Your task to perform on an android device: see tabs open on other devices in the chrome app Image 0: 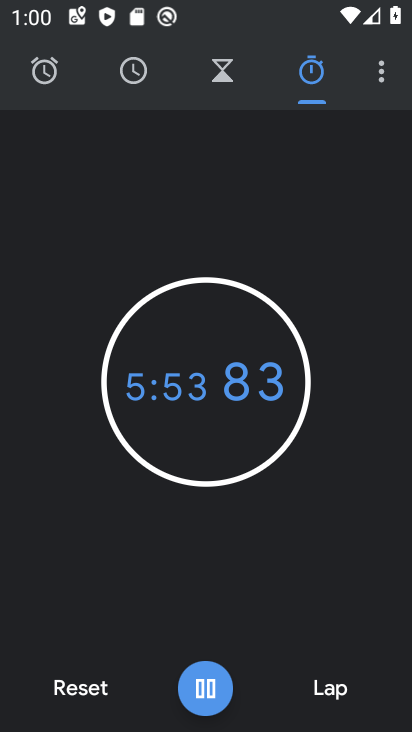
Step 0: click (103, 688)
Your task to perform on an android device: see tabs open on other devices in the chrome app Image 1: 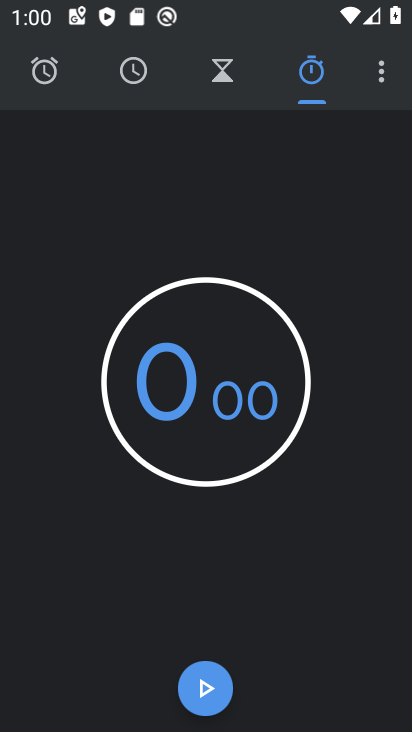
Step 1: press home button
Your task to perform on an android device: see tabs open on other devices in the chrome app Image 2: 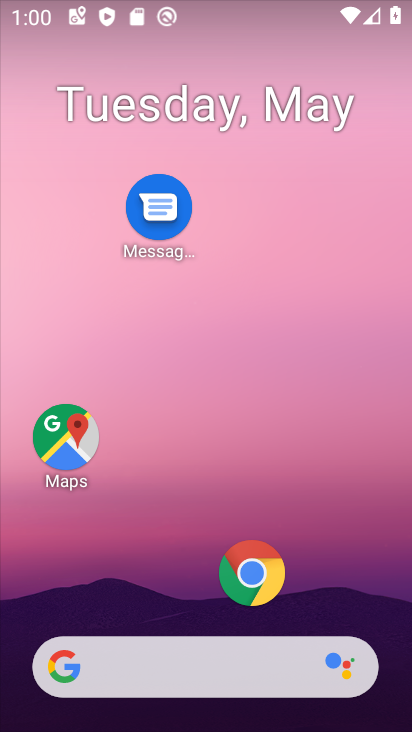
Step 2: click (259, 581)
Your task to perform on an android device: see tabs open on other devices in the chrome app Image 3: 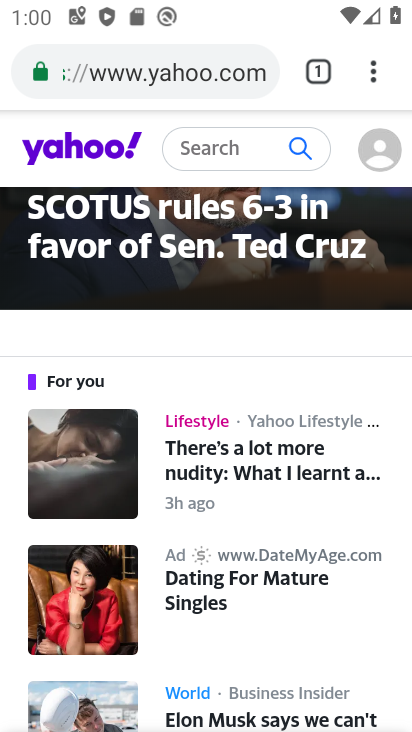
Step 3: click (367, 78)
Your task to perform on an android device: see tabs open on other devices in the chrome app Image 4: 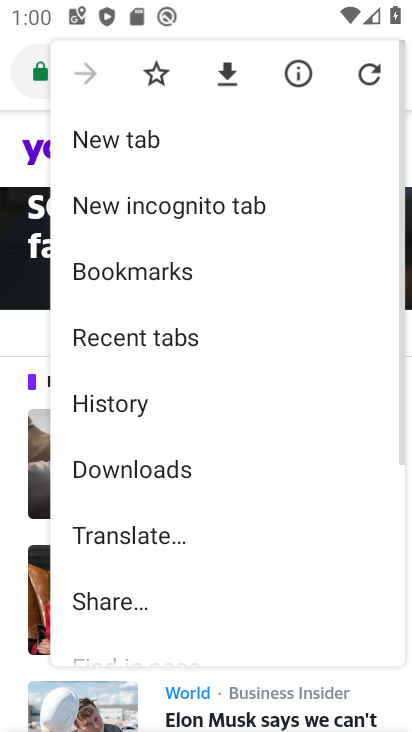
Step 4: drag from (127, 581) to (216, 257)
Your task to perform on an android device: see tabs open on other devices in the chrome app Image 5: 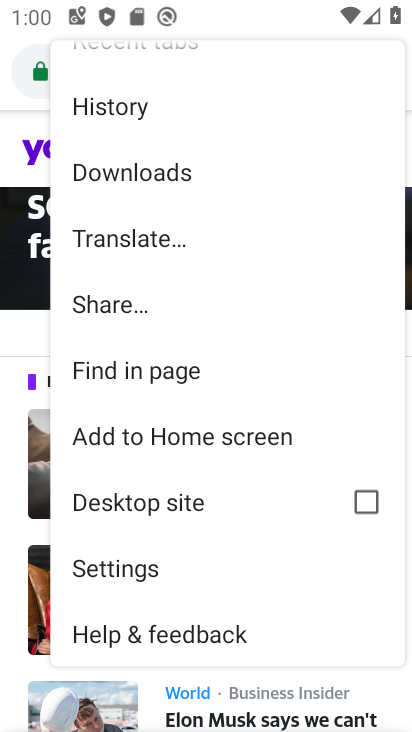
Step 5: click (134, 561)
Your task to perform on an android device: see tabs open on other devices in the chrome app Image 6: 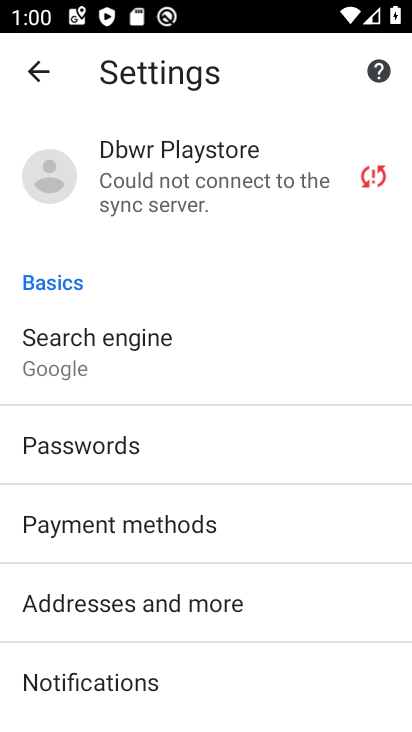
Step 6: click (35, 69)
Your task to perform on an android device: see tabs open on other devices in the chrome app Image 7: 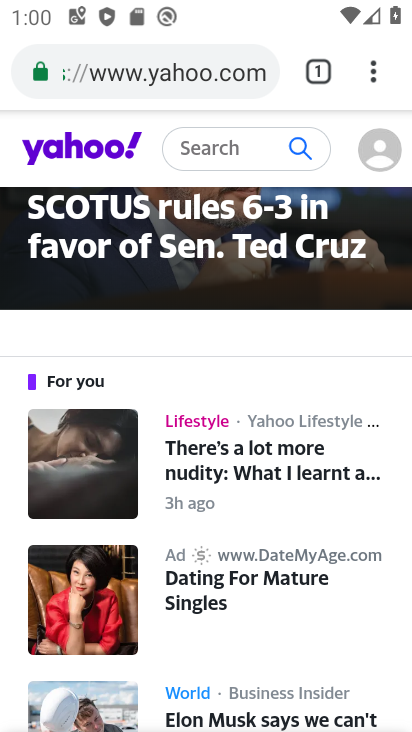
Step 7: click (369, 72)
Your task to perform on an android device: see tabs open on other devices in the chrome app Image 8: 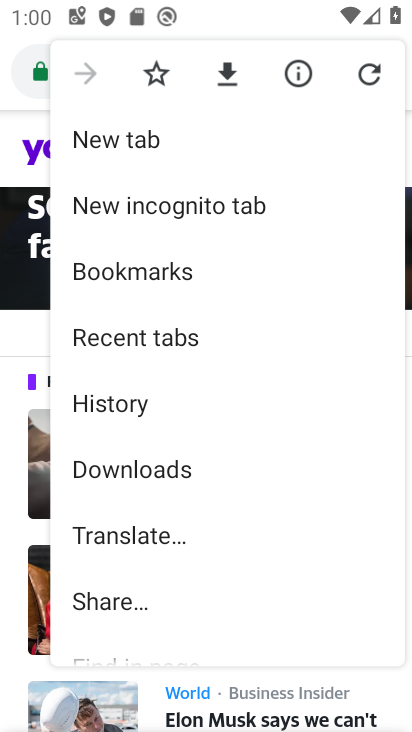
Step 8: click (171, 339)
Your task to perform on an android device: see tabs open on other devices in the chrome app Image 9: 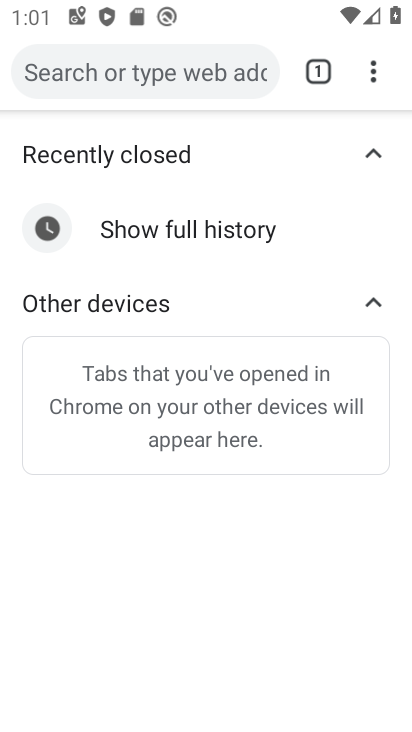
Step 9: task complete